Your task to perform on an android device: Open settings Image 0: 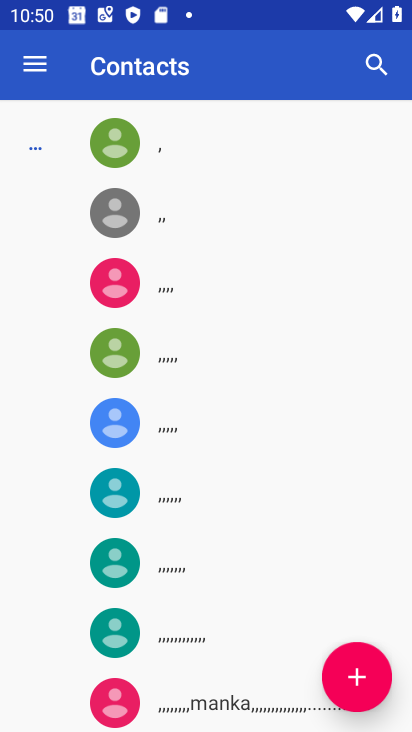
Step 0: press home button
Your task to perform on an android device: Open settings Image 1: 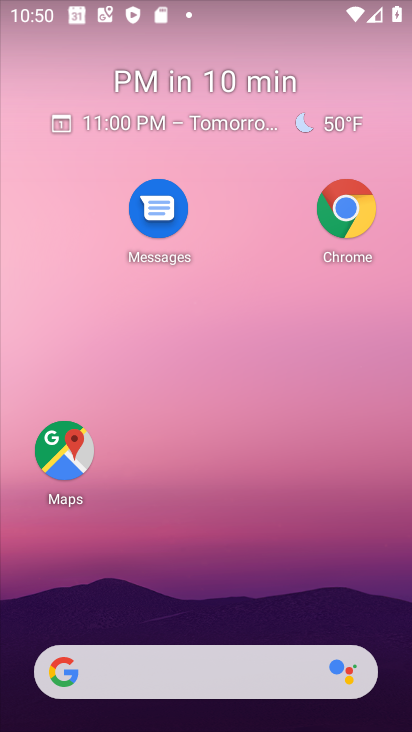
Step 1: drag from (208, 640) to (181, 2)
Your task to perform on an android device: Open settings Image 2: 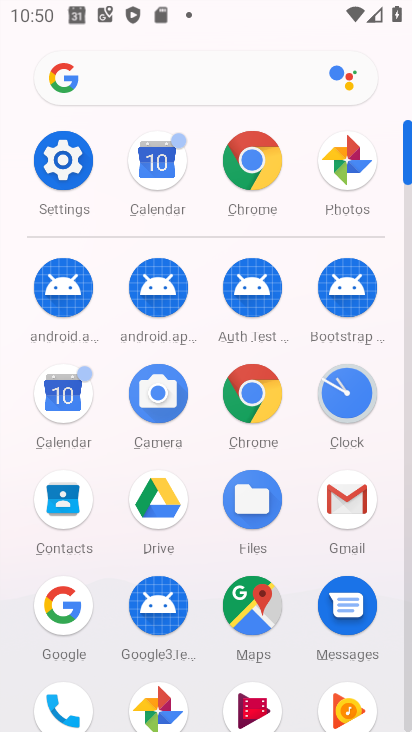
Step 2: click (71, 160)
Your task to perform on an android device: Open settings Image 3: 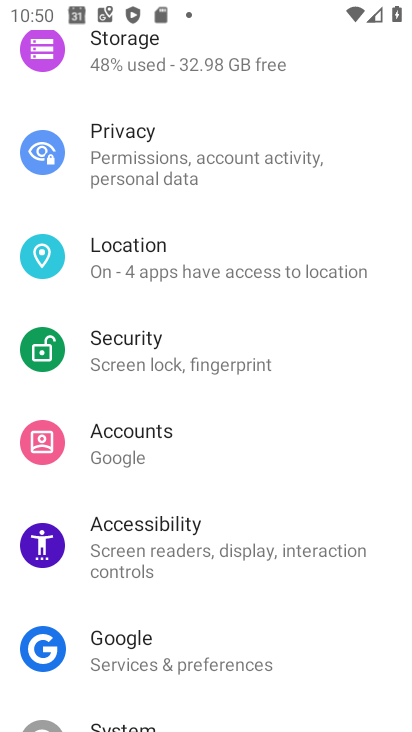
Step 3: task complete